Your task to perform on an android device: Open Google Image 0: 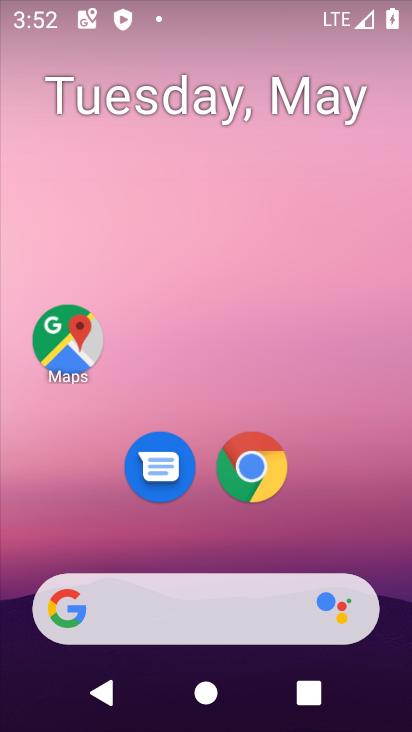
Step 0: drag from (363, 502) to (279, 53)
Your task to perform on an android device: Open Google Image 1: 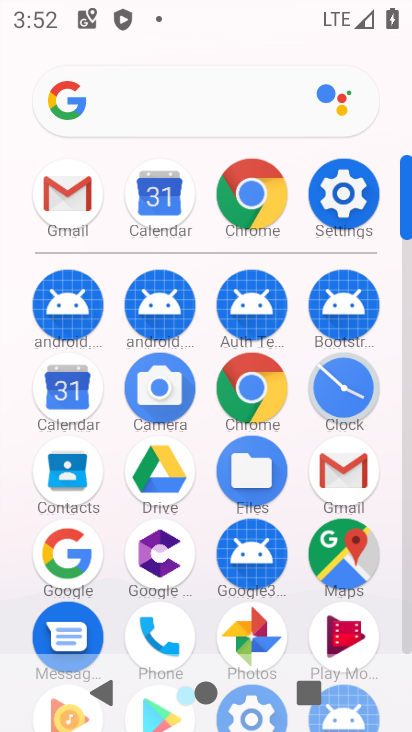
Step 1: click (64, 568)
Your task to perform on an android device: Open Google Image 2: 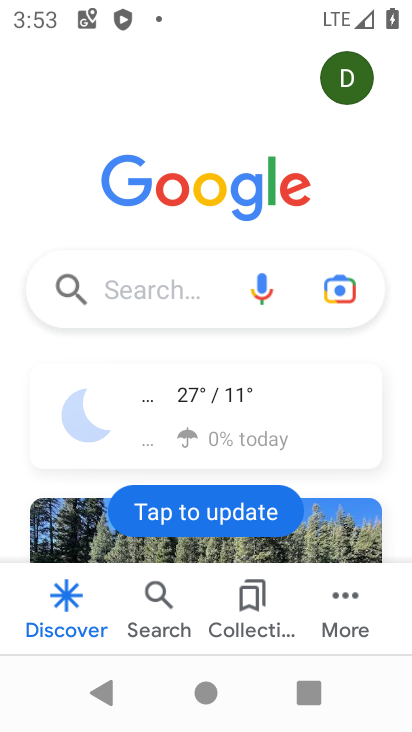
Step 2: task complete